Your task to perform on an android device: Open my contact list Image 0: 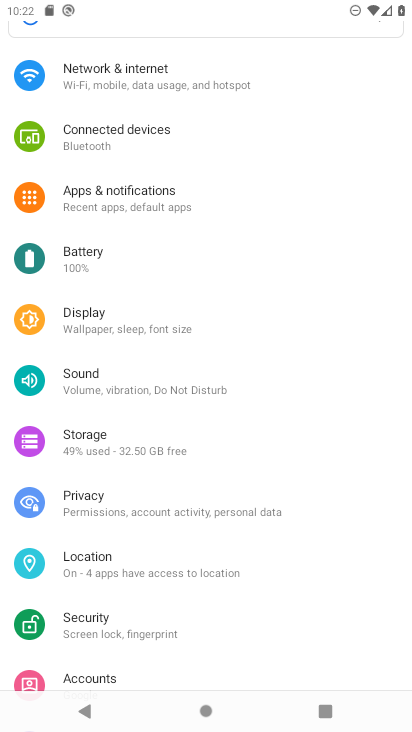
Step 0: press home button
Your task to perform on an android device: Open my contact list Image 1: 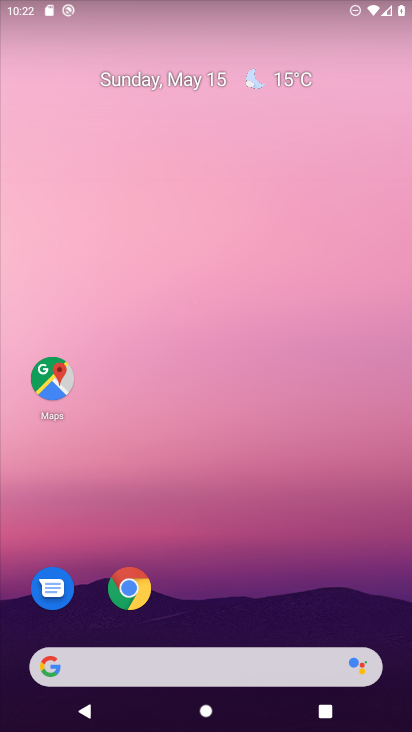
Step 1: drag from (220, 618) to (190, 3)
Your task to perform on an android device: Open my contact list Image 2: 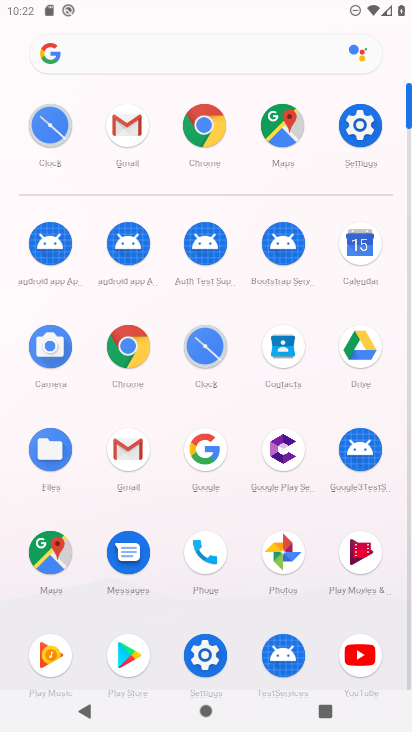
Step 2: click (275, 349)
Your task to perform on an android device: Open my contact list Image 3: 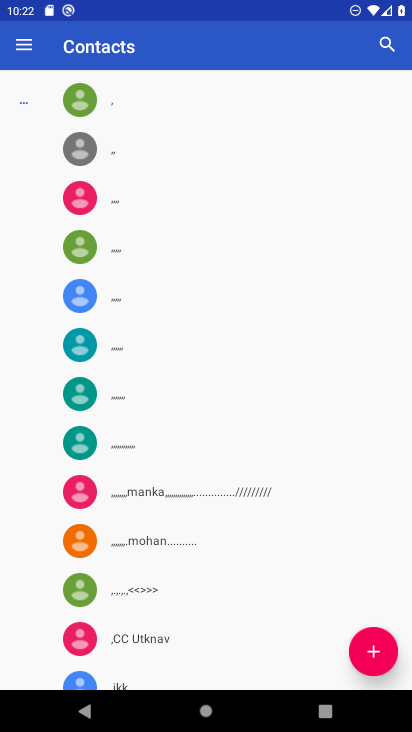
Step 3: task complete